Your task to perform on an android device: turn on sleep mode Image 0: 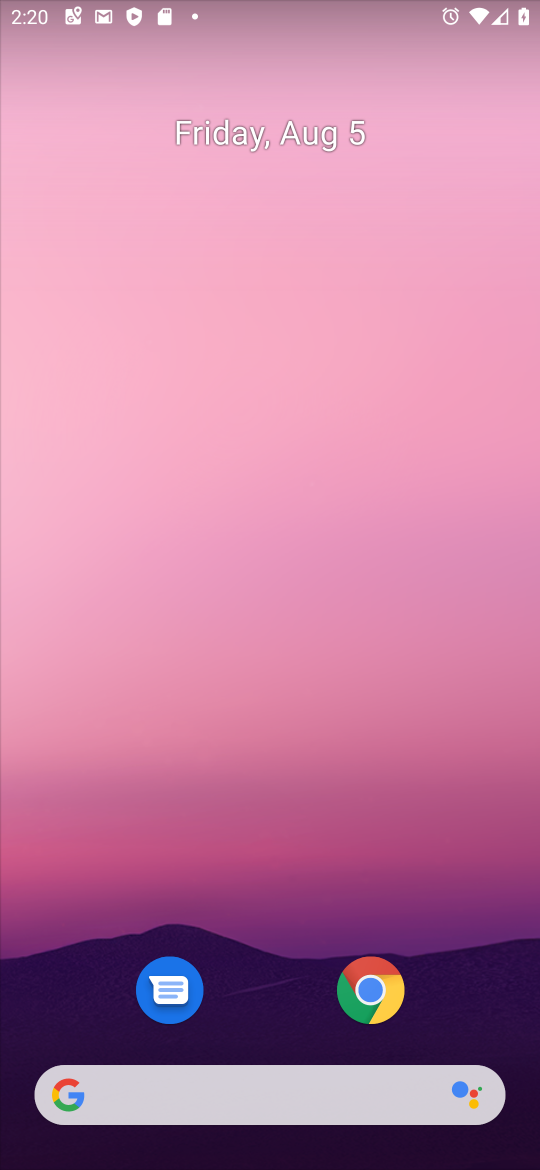
Step 0: drag from (283, 1098) to (221, 623)
Your task to perform on an android device: turn on sleep mode Image 1: 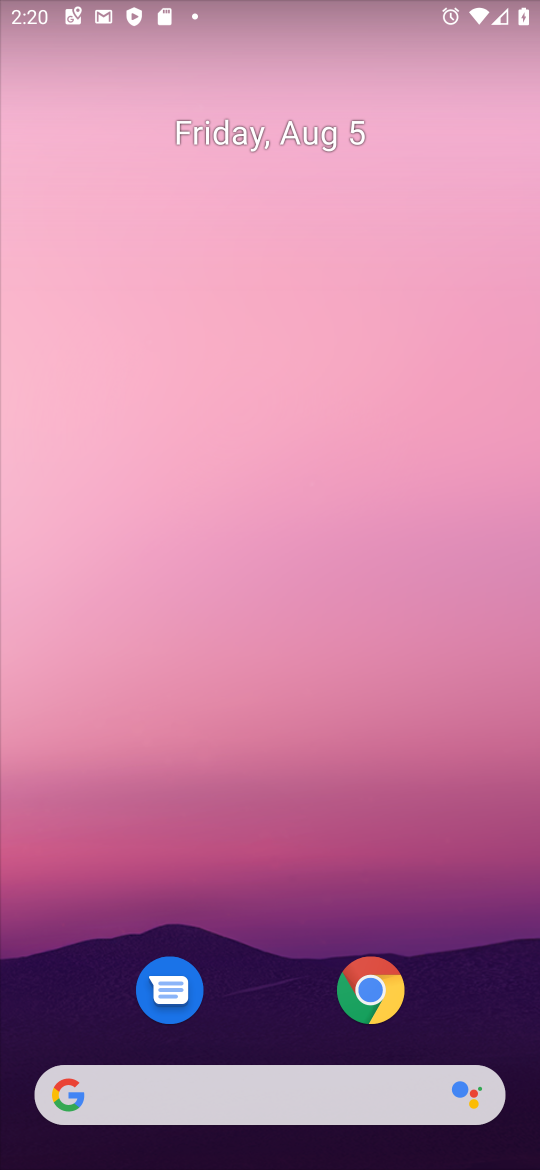
Step 1: drag from (284, 1063) to (264, 388)
Your task to perform on an android device: turn on sleep mode Image 2: 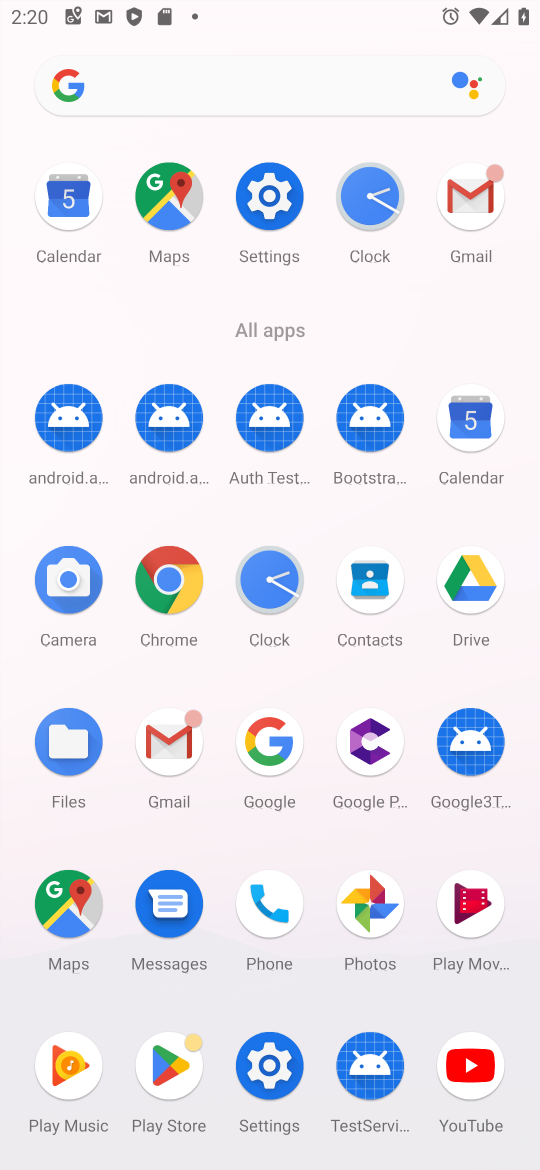
Step 2: click (254, 217)
Your task to perform on an android device: turn on sleep mode Image 3: 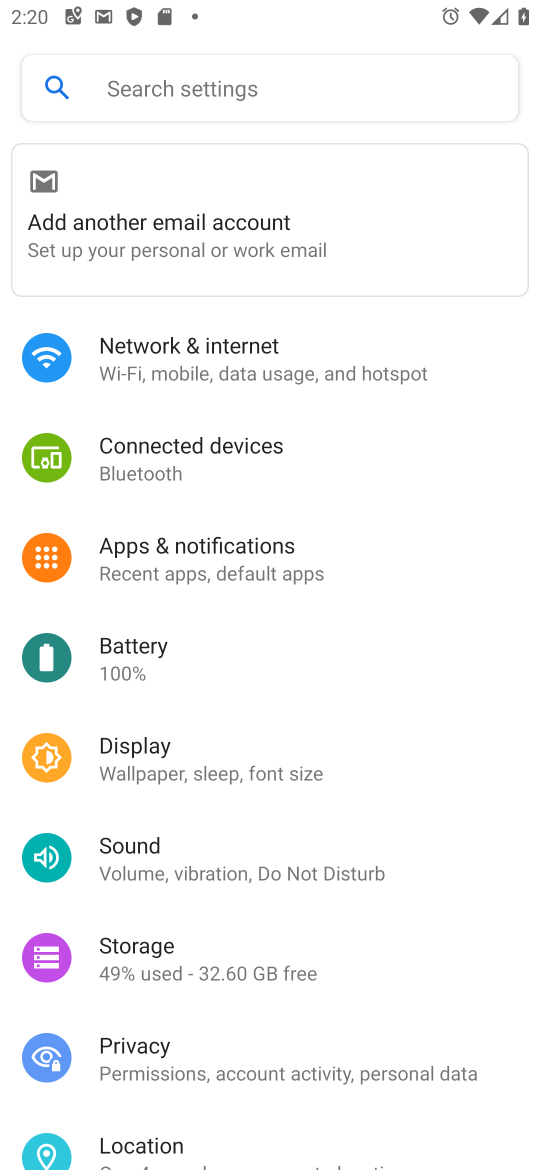
Step 3: click (181, 779)
Your task to perform on an android device: turn on sleep mode Image 4: 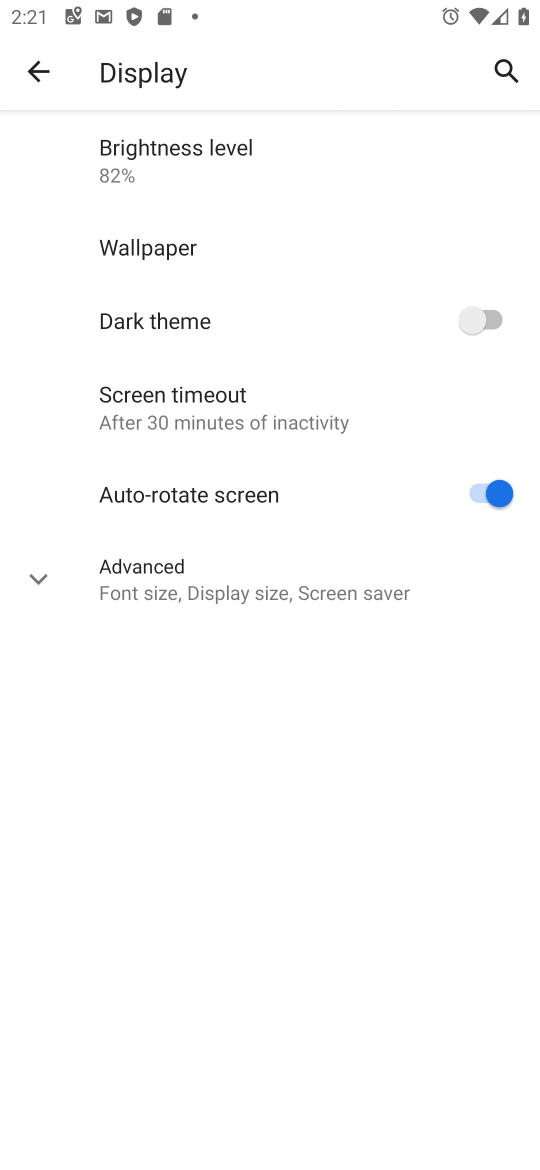
Step 4: click (191, 584)
Your task to perform on an android device: turn on sleep mode Image 5: 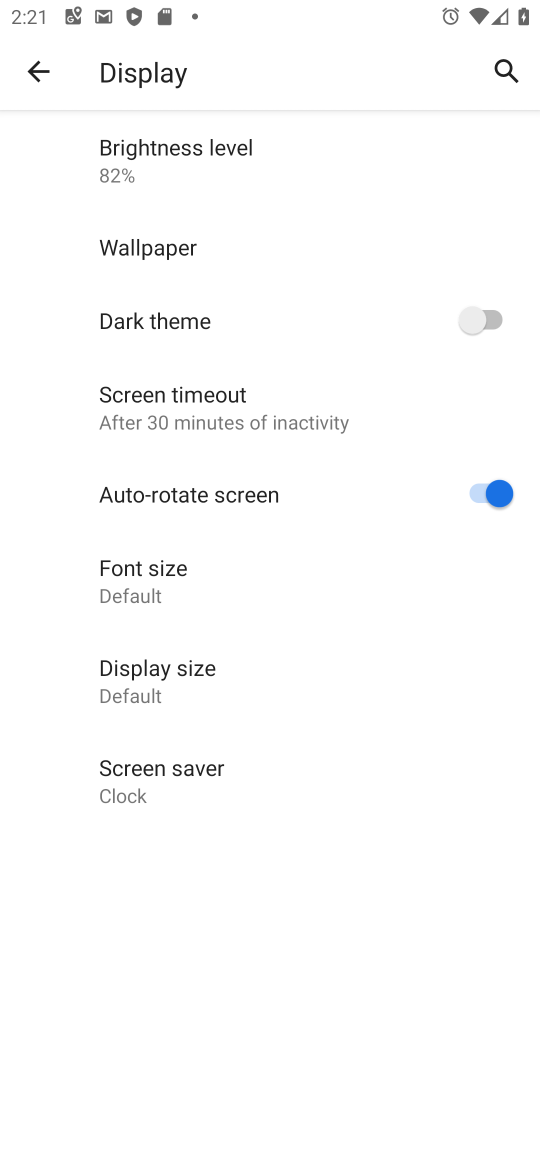
Step 5: task complete